Your task to perform on an android device: Open Yahoo.com Image 0: 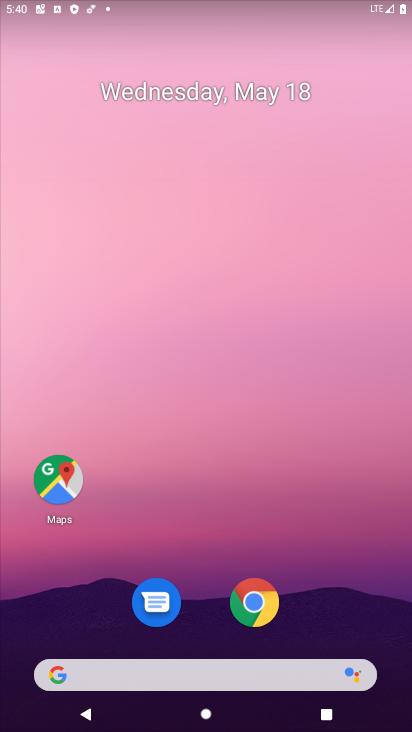
Step 0: drag from (232, 668) to (295, 35)
Your task to perform on an android device: Open Yahoo.com Image 1: 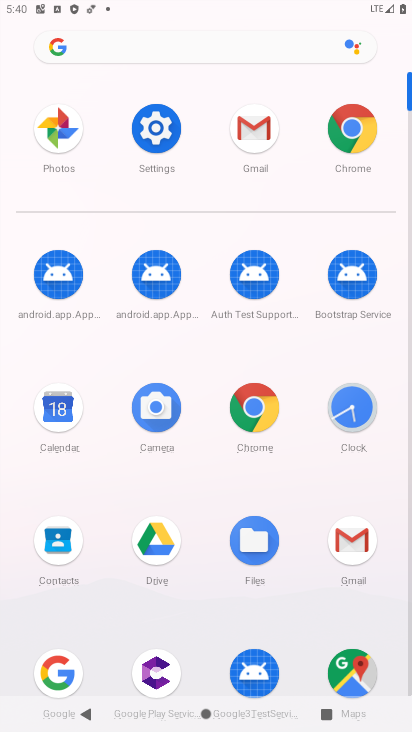
Step 1: click (268, 410)
Your task to perform on an android device: Open Yahoo.com Image 2: 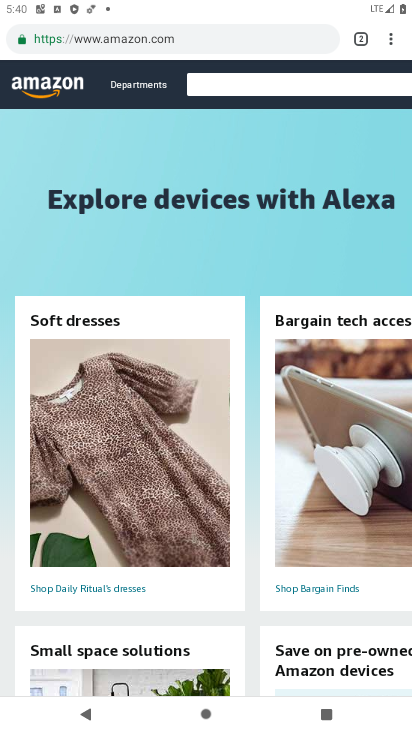
Step 2: click (219, 33)
Your task to perform on an android device: Open Yahoo.com Image 3: 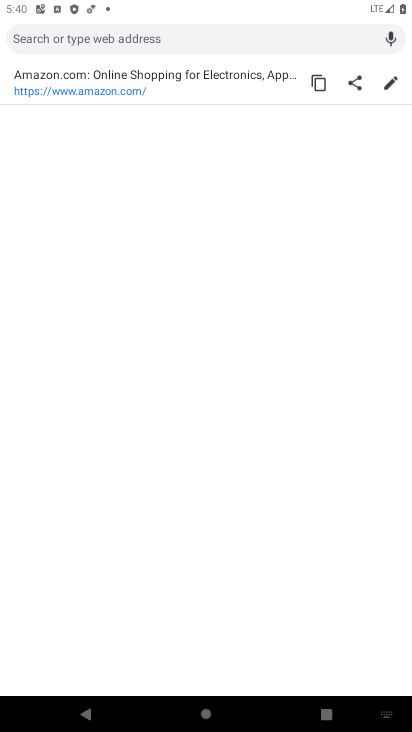
Step 3: type "yahoo.com"
Your task to perform on an android device: Open Yahoo.com Image 4: 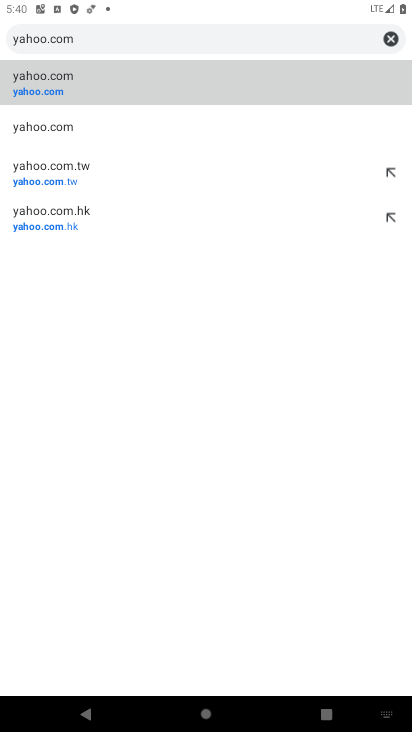
Step 4: click (69, 87)
Your task to perform on an android device: Open Yahoo.com Image 5: 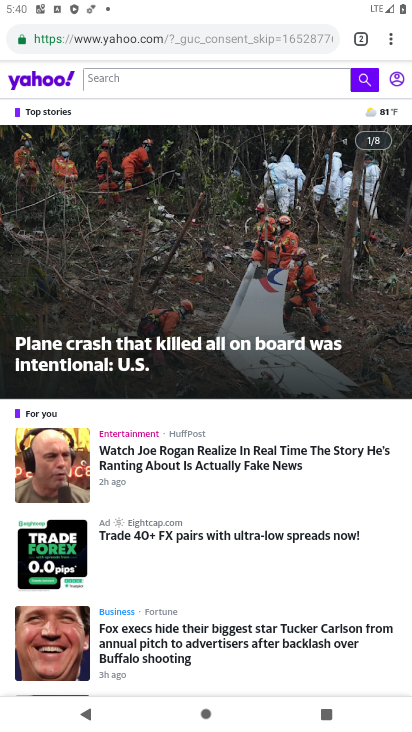
Step 5: task complete